Your task to perform on an android device: read, delete, or share a saved page in the chrome app Image 0: 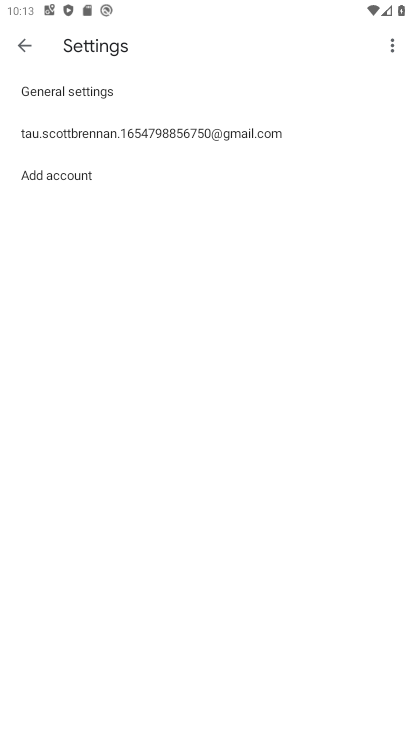
Step 0: press home button
Your task to perform on an android device: read, delete, or share a saved page in the chrome app Image 1: 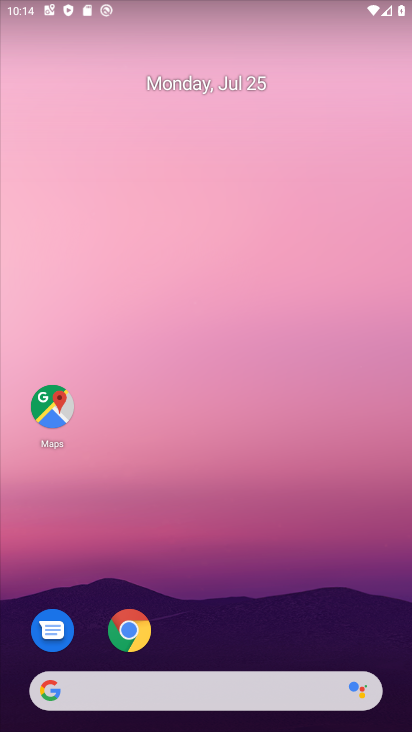
Step 1: drag from (343, 587) to (323, 82)
Your task to perform on an android device: read, delete, or share a saved page in the chrome app Image 2: 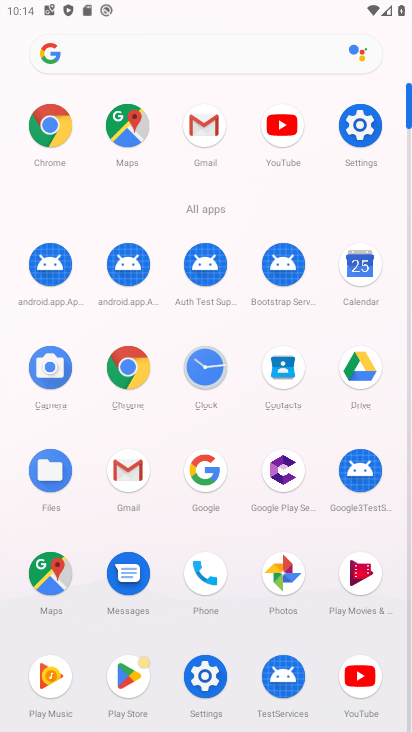
Step 2: click (133, 362)
Your task to perform on an android device: read, delete, or share a saved page in the chrome app Image 3: 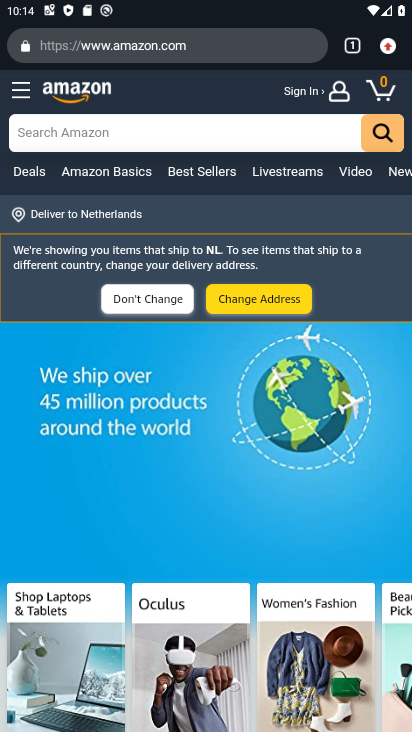
Step 3: click (383, 45)
Your task to perform on an android device: read, delete, or share a saved page in the chrome app Image 4: 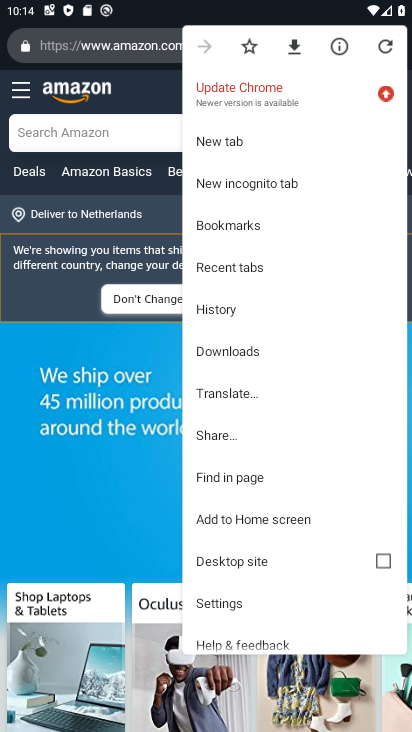
Step 4: click (241, 350)
Your task to perform on an android device: read, delete, or share a saved page in the chrome app Image 5: 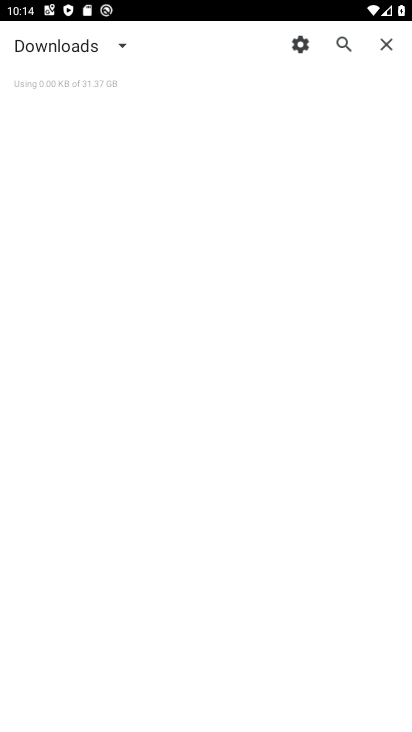
Step 5: click (115, 44)
Your task to perform on an android device: read, delete, or share a saved page in the chrome app Image 6: 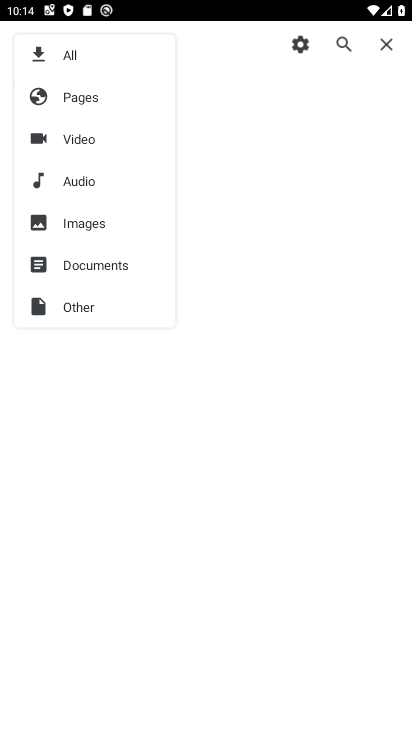
Step 6: click (80, 96)
Your task to perform on an android device: read, delete, or share a saved page in the chrome app Image 7: 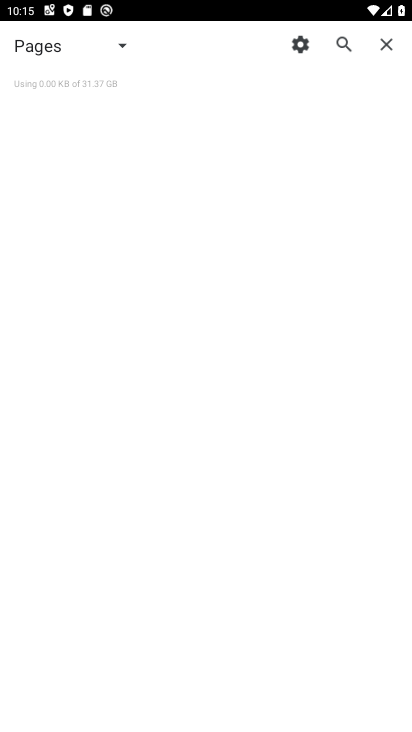
Step 7: task complete